Your task to perform on an android device: check google app version Image 0: 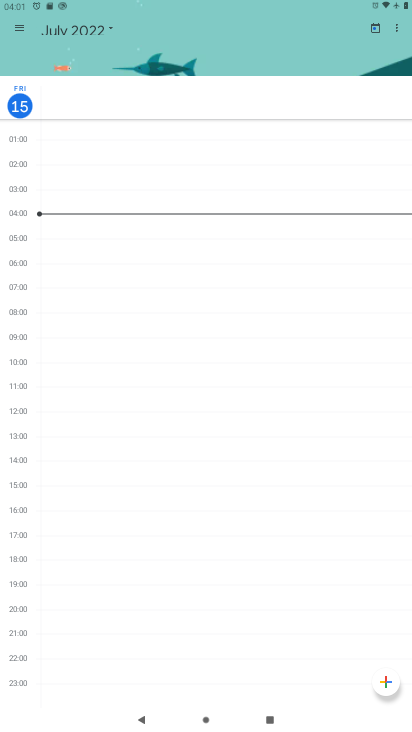
Step 0: press home button
Your task to perform on an android device: check google app version Image 1: 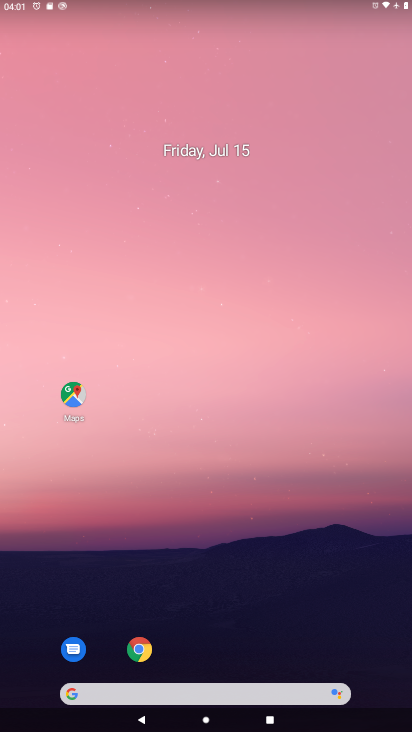
Step 1: click (138, 650)
Your task to perform on an android device: check google app version Image 2: 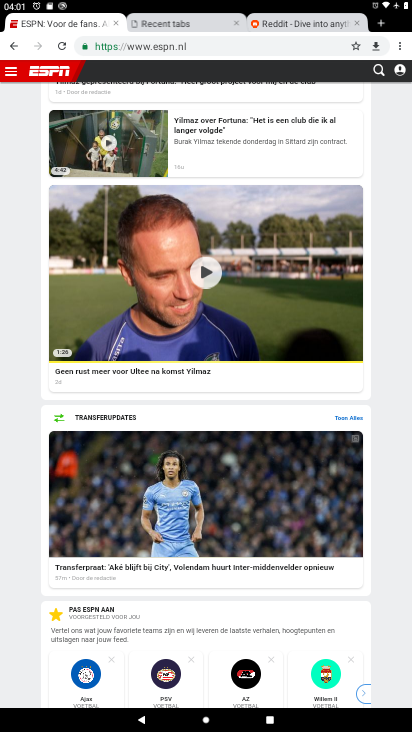
Step 2: click (398, 48)
Your task to perform on an android device: check google app version Image 3: 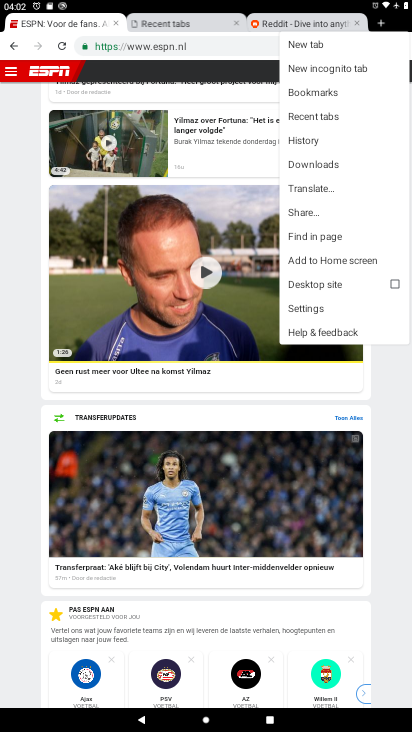
Step 3: click (309, 308)
Your task to perform on an android device: check google app version Image 4: 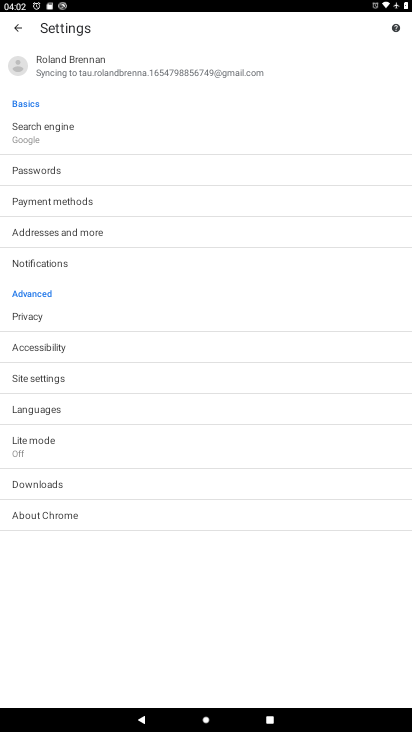
Step 4: click (28, 507)
Your task to perform on an android device: check google app version Image 5: 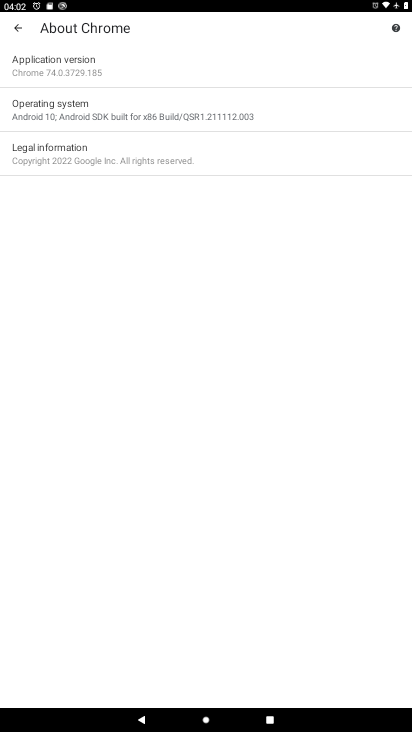
Step 5: click (51, 56)
Your task to perform on an android device: check google app version Image 6: 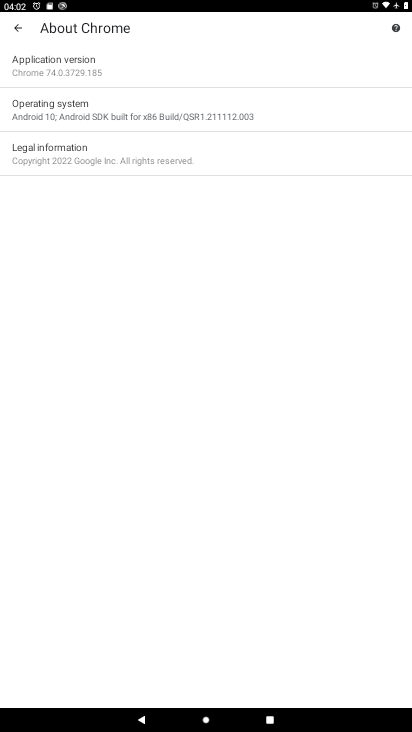
Step 6: task complete